Your task to perform on an android device: Open Google Maps and go to "Timeline" Image 0: 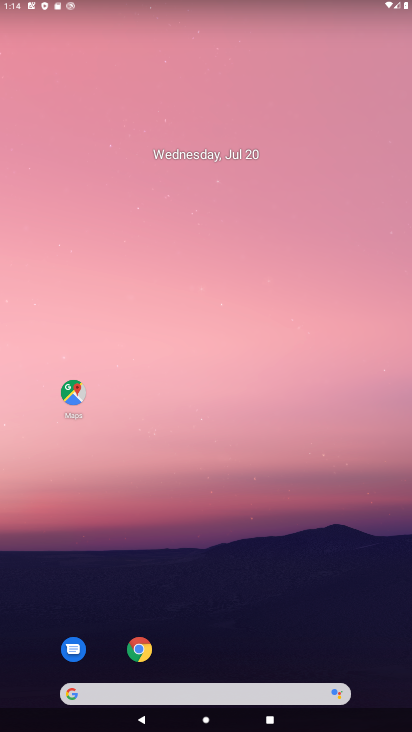
Step 0: click (80, 401)
Your task to perform on an android device: Open Google Maps and go to "Timeline" Image 1: 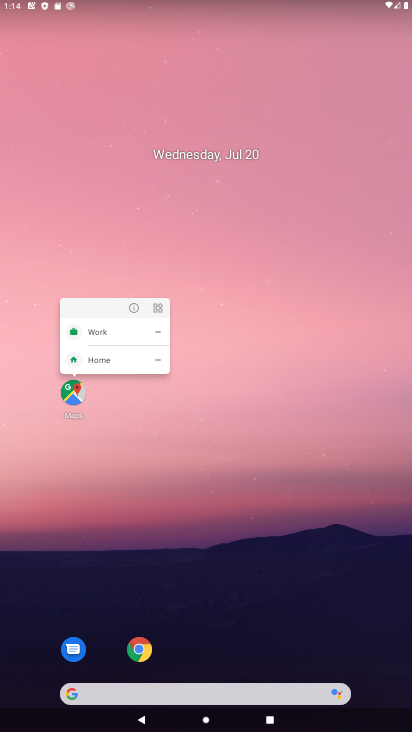
Step 1: click (80, 401)
Your task to perform on an android device: Open Google Maps and go to "Timeline" Image 2: 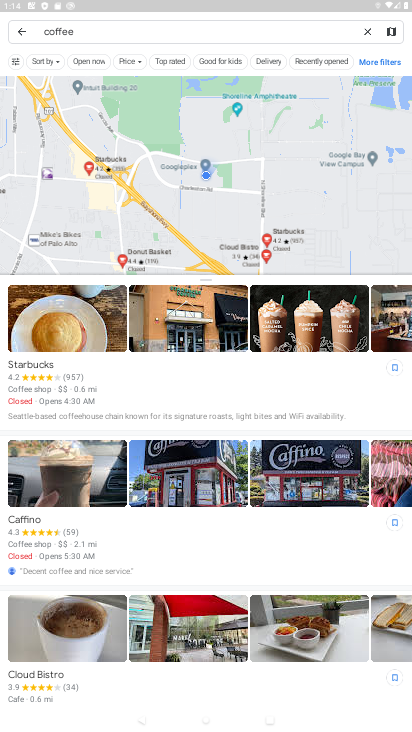
Step 2: click (16, 32)
Your task to perform on an android device: Open Google Maps and go to "Timeline" Image 3: 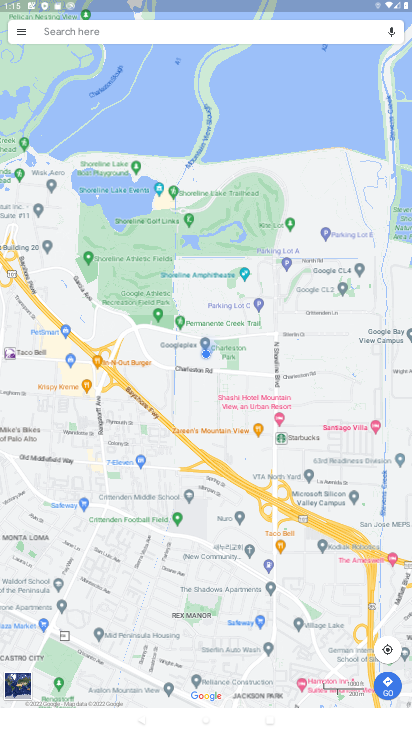
Step 3: click (16, 32)
Your task to perform on an android device: Open Google Maps and go to "Timeline" Image 4: 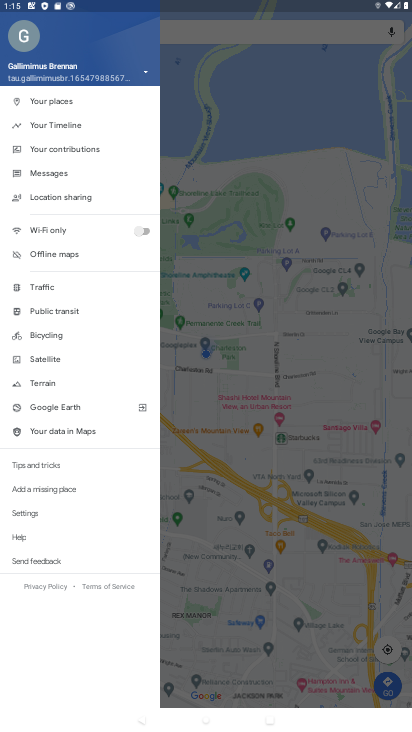
Step 4: click (39, 126)
Your task to perform on an android device: Open Google Maps and go to "Timeline" Image 5: 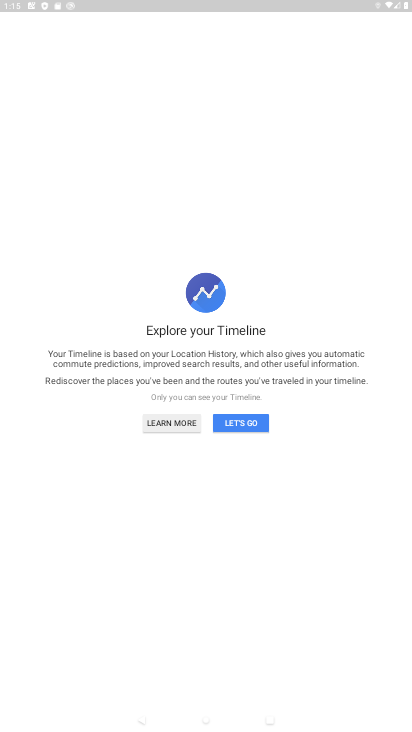
Step 5: click (250, 422)
Your task to perform on an android device: Open Google Maps and go to "Timeline" Image 6: 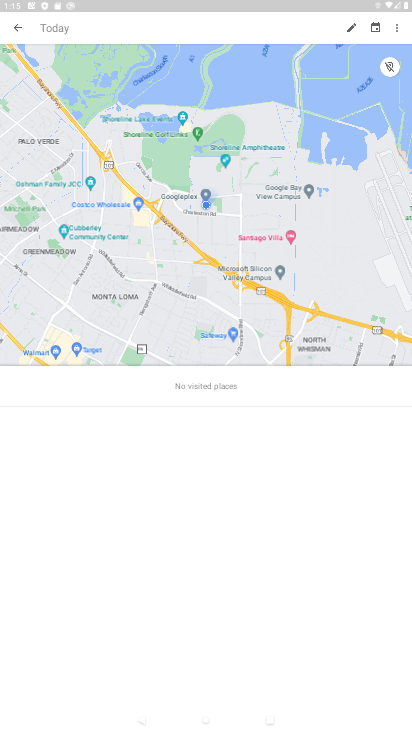
Step 6: task complete